Your task to perform on an android device: Open maps Image 0: 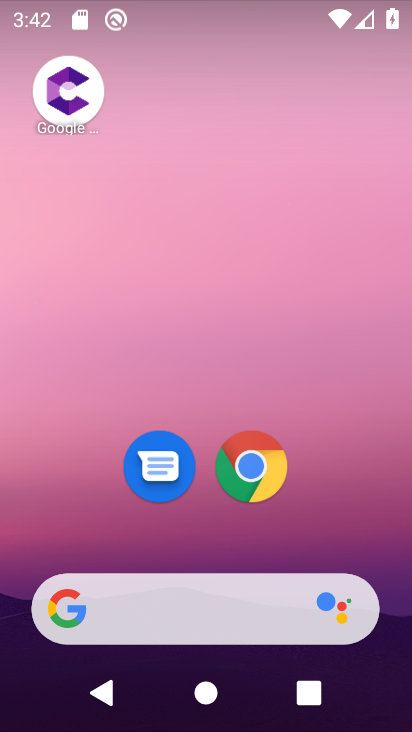
Step 0: drag from (102, 516) to (102, 24)
Your task to perform on an android device: Open maps Image 1: 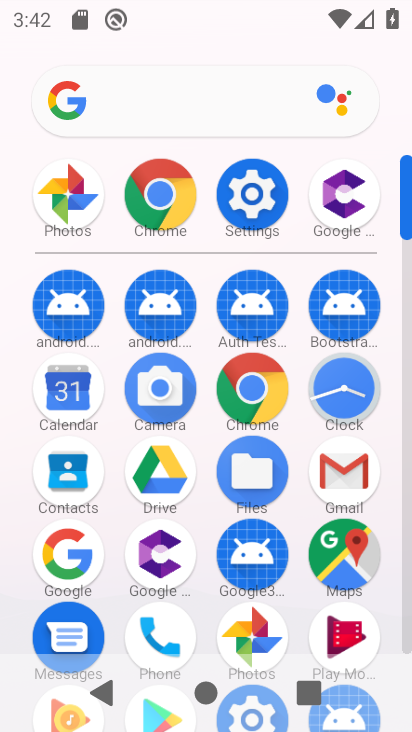
Step 1: click (349, 549)
Your task to perform on an android device: Open maps Image 2: 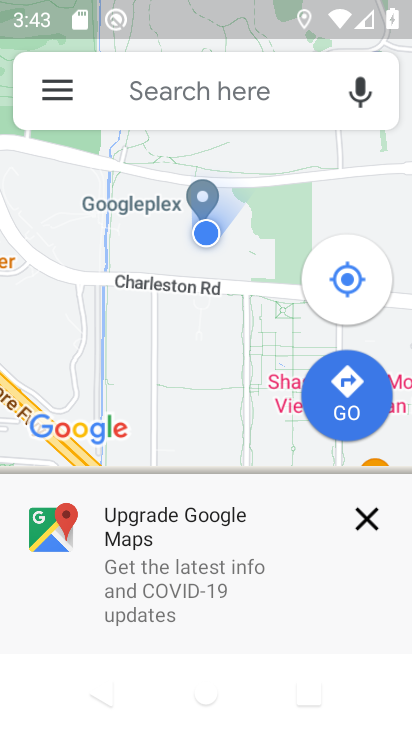
Step 2: task complete